Your task to perform on an android device: Open Chrome and go to settings Image 0: 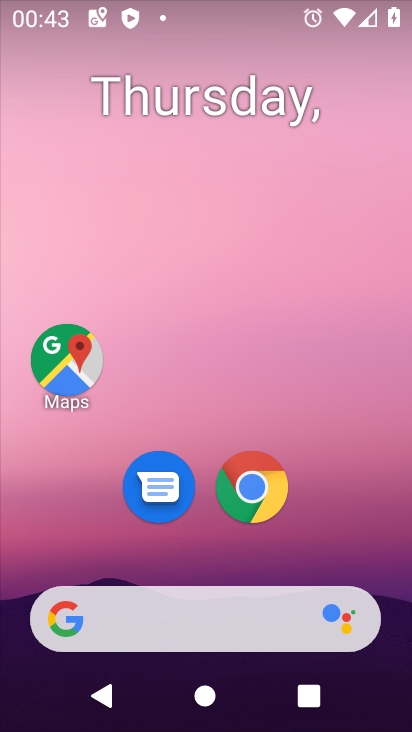
Step 0: click (256, 484)
Your task to perform on an android device: Open Chrome and go to settings Image 1: 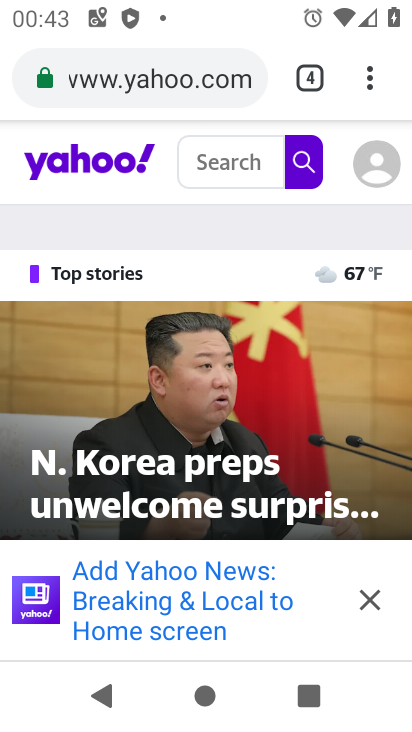
Step 1: click (376, 78)
Your task to perform on an android device: Open Chrome and go to settings Image 2: 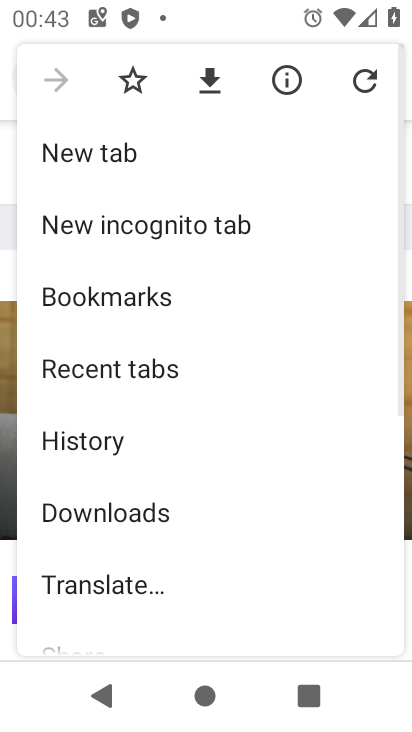
Step 2: drag from (241, 574) to (213, 140)
Your task to perform on an android device: Open Chrome and go to settings Image 3: 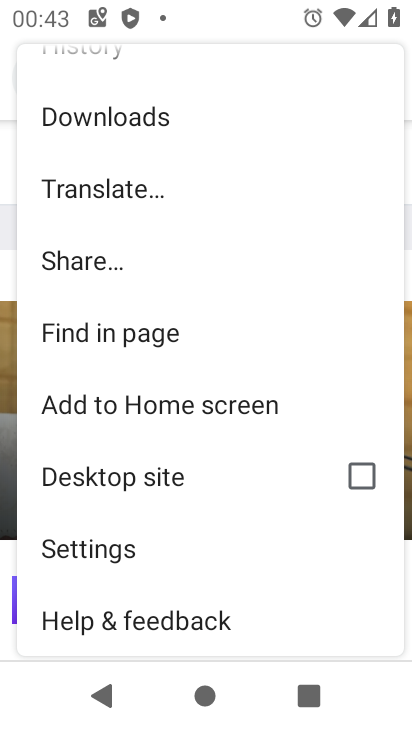
Step 3: click (114, 549)
Your task to perform on an android device: Open Chrome and go to settings Image 4: 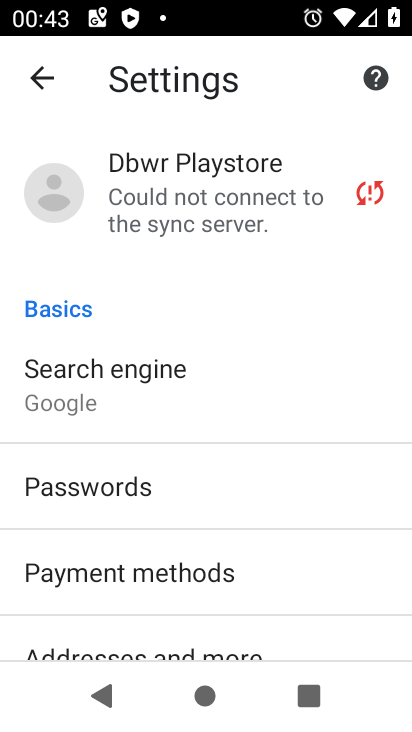
Step 4: task complete